Your task to perform on an android device: turn on showing notifications on the lock screen Image 0: 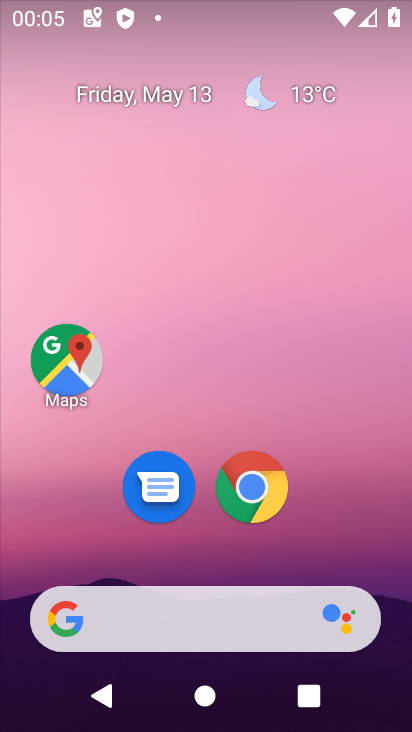
Step 0: click (265, 486)
Your task to perform on an android device: turn on showing notifications on the lock screen Image 1: 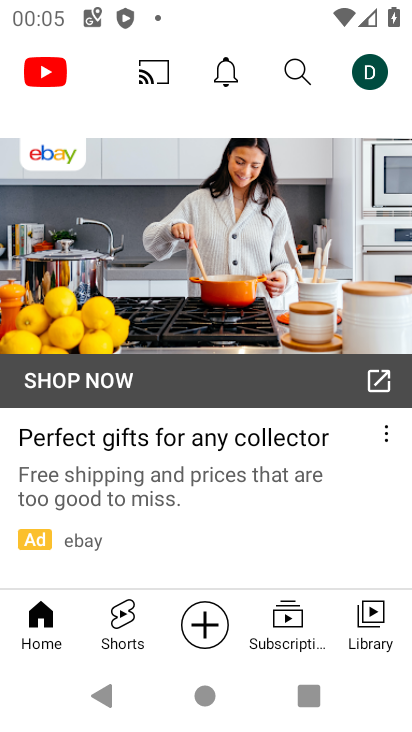
Step 1: press home button
Your task to perform on an android device: turn on showing notifications on the lock screen Image 2: 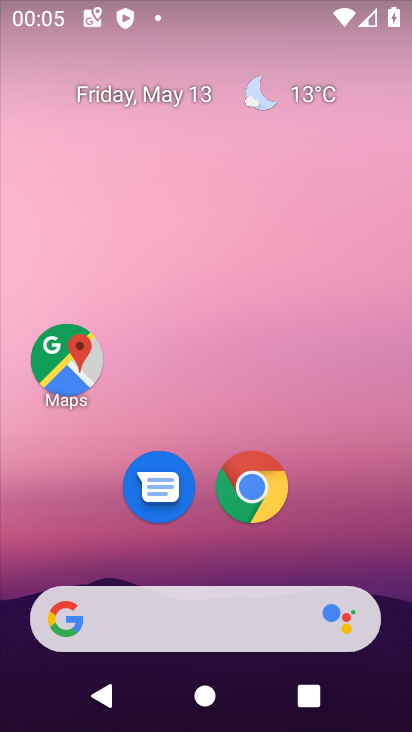
Step 2: drag from (212, 529) to (206, 115)
Your task to perform on an android device: turn on showing notifications on the lock screen Image 3: 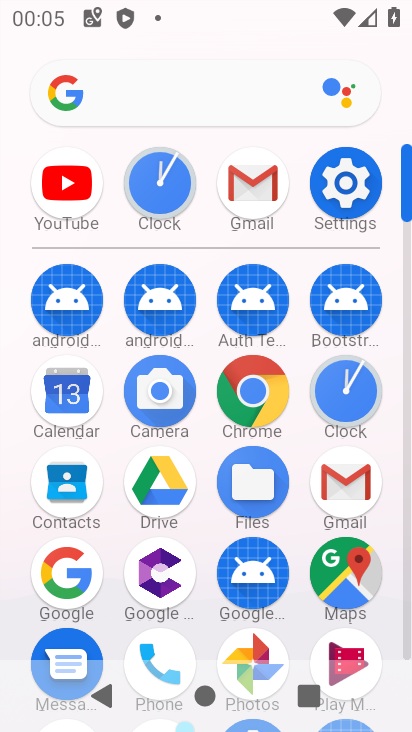
Step 3: click (327, 160)
Your task to perform on an android device: turn on showing notifications on the lock screen Image 4: 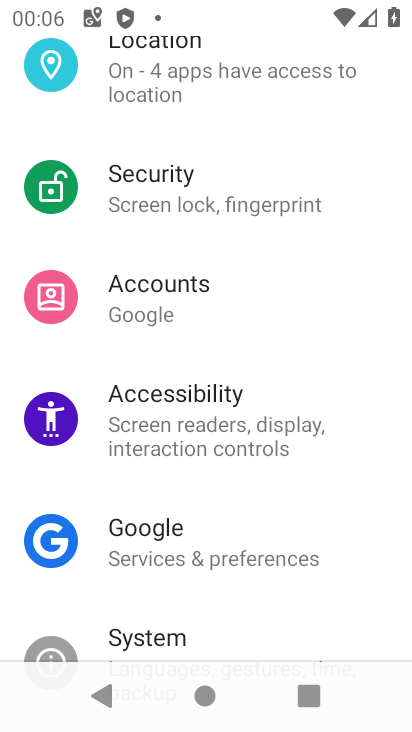
Step 4: drag from (204, 106) to (148, 717)
Your task to perform on an android device: turn on showing notifications on the lock screen Image 5: 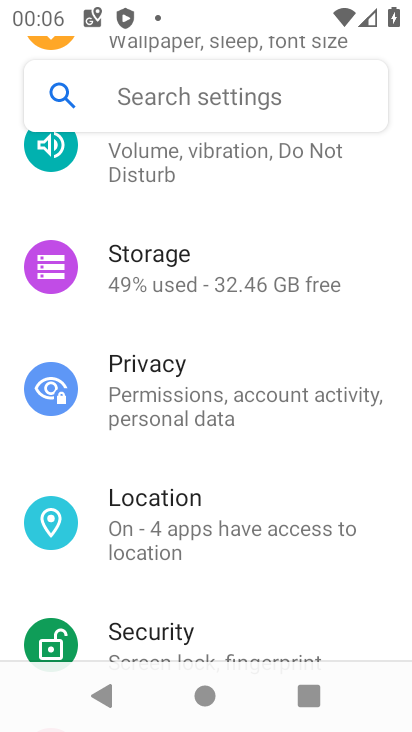
Step 5: drag from (183, 189) to (136, 711)
Your task to perform on an android device: turn on showing notifications on the lock screen Image 6: 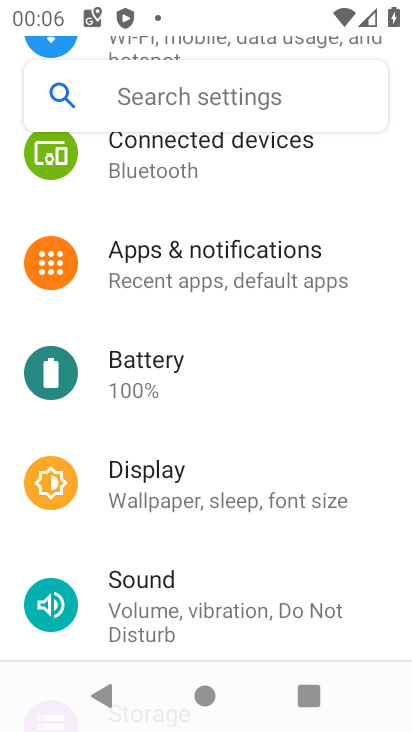
Step 6: click (195, 267)
Your task to perform on an android device: turn on showing notifications on the lock screen Image 7: 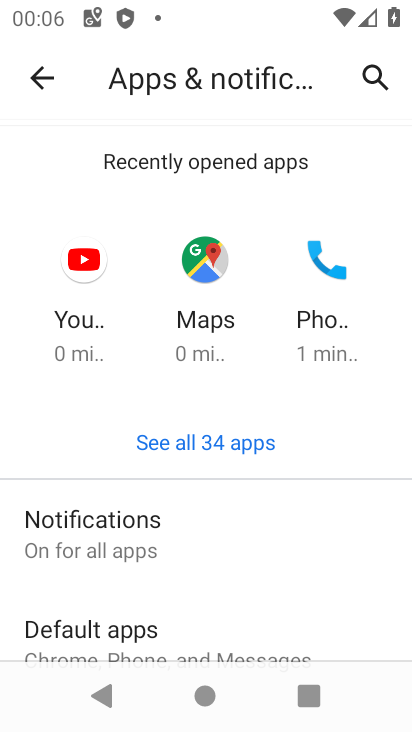
Step 7: drag from (168, 636) to (273, 121)
Your task to perform on an android device: turn on showing notifications on the lock screen Image 8: 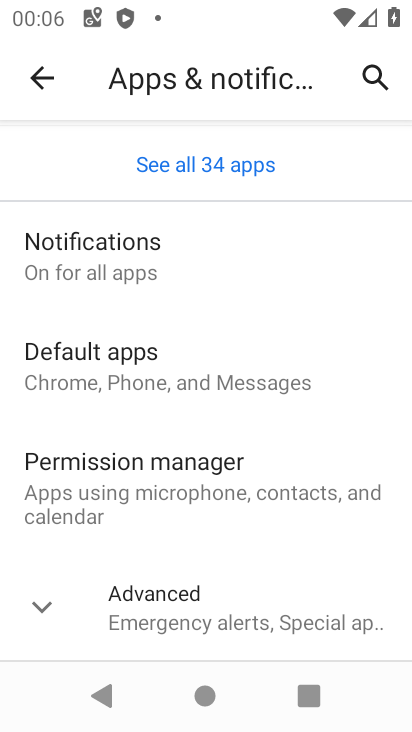
Step 8: click (170, 215)
Your task to perform on an android device: turn on showing notifications on the lock screen Image 9: 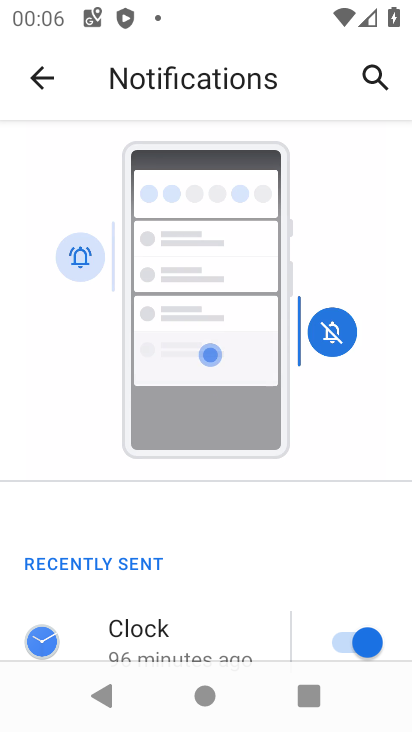
Step 9: drag from (160, 614) to (260, 134)
Your task to perform on an android device: turn on showing notifications on the lock screen Image 10: 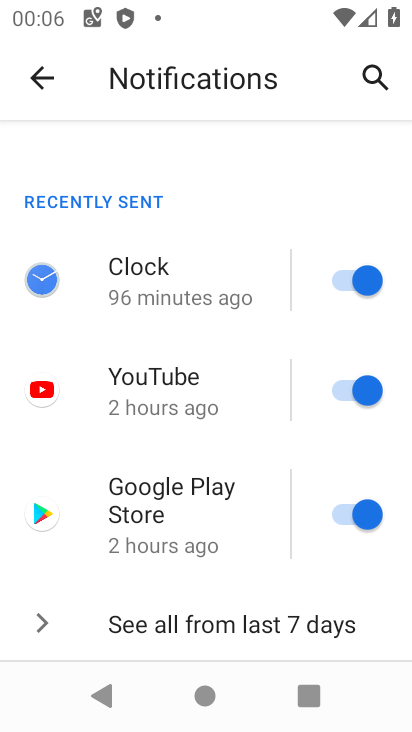
Step 10: drag from (104, 632) to (258, 119)
Your task to perform on an android device: turn on showing notifications on the lock screen Image 11: 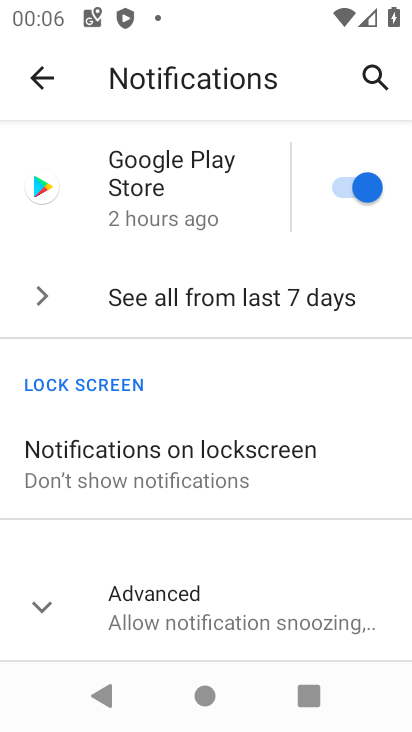
Step 11: click (196, 472)
Your task to perform on an android device: turn on showing notifications on the lock screen Image 12: 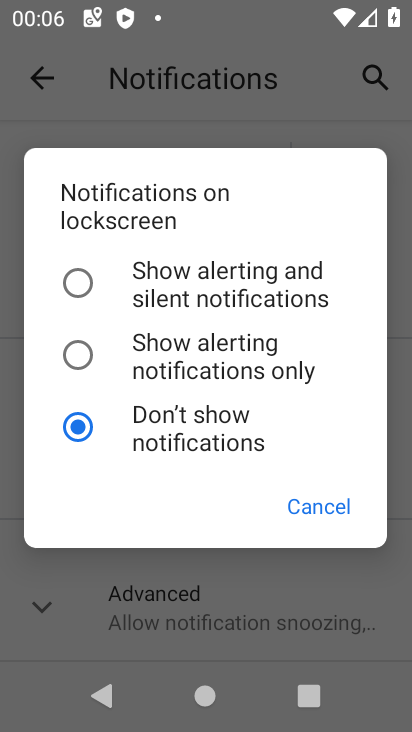
Step 12: click (277, 256)
Your task to perform on an android device: turn on showing notifications on the lock screen Image 13: 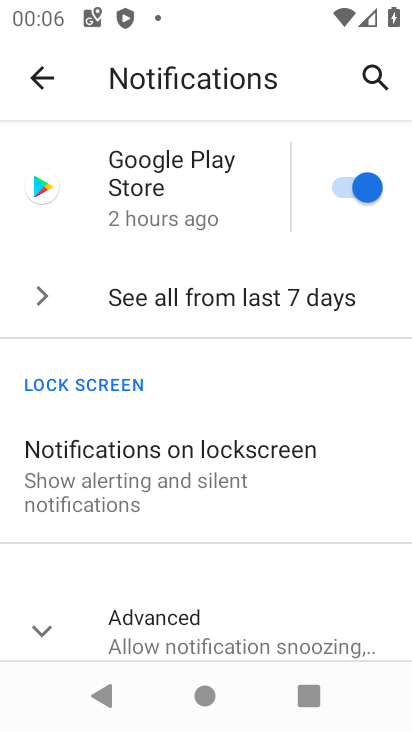
Step 13: task complete